Your task to perform on an android device: open a bookmark in the chrome app Image 0: 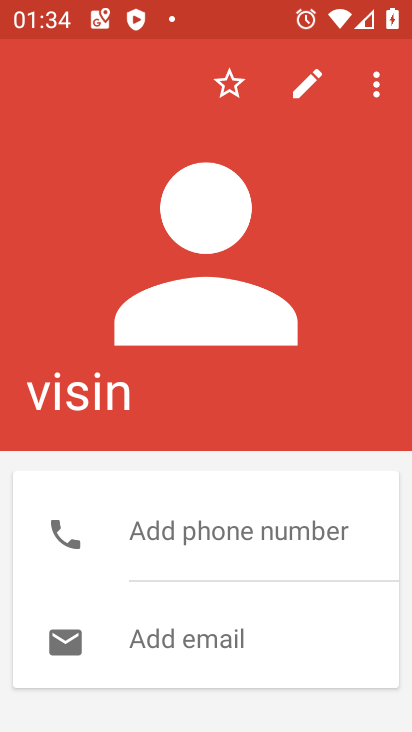
Step 0: press home button
Your task to perform on an android device: open a bookmark in the chrome app Image 1: 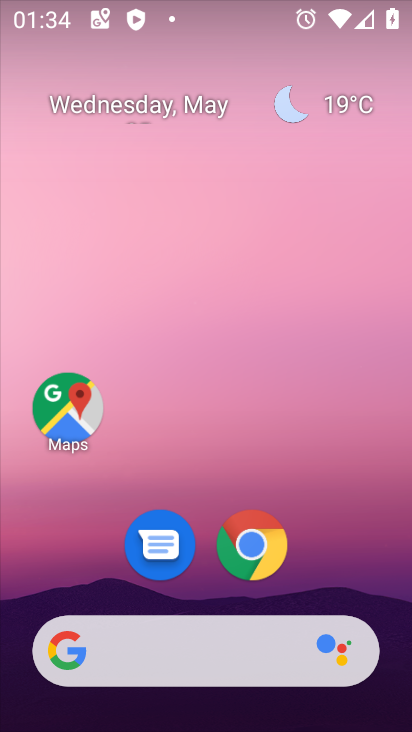
Step 1: click (250, 529)
Your task to perform on an android device: open a bookmark in the chrome app Image 2: 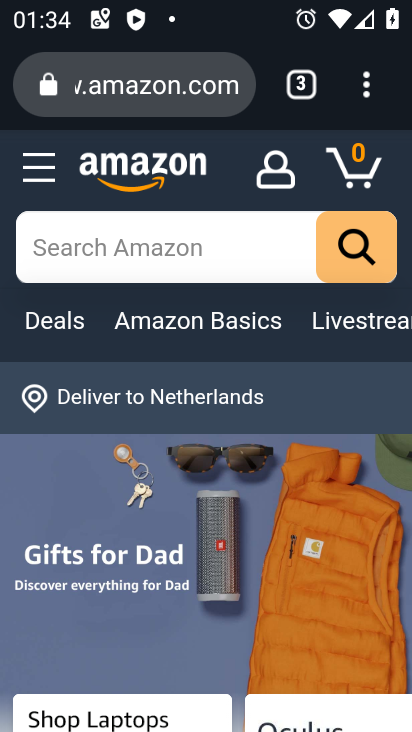
Step 2: task complete